Your task to perform on an android device: open app "Indeed Job Search" Image 0: 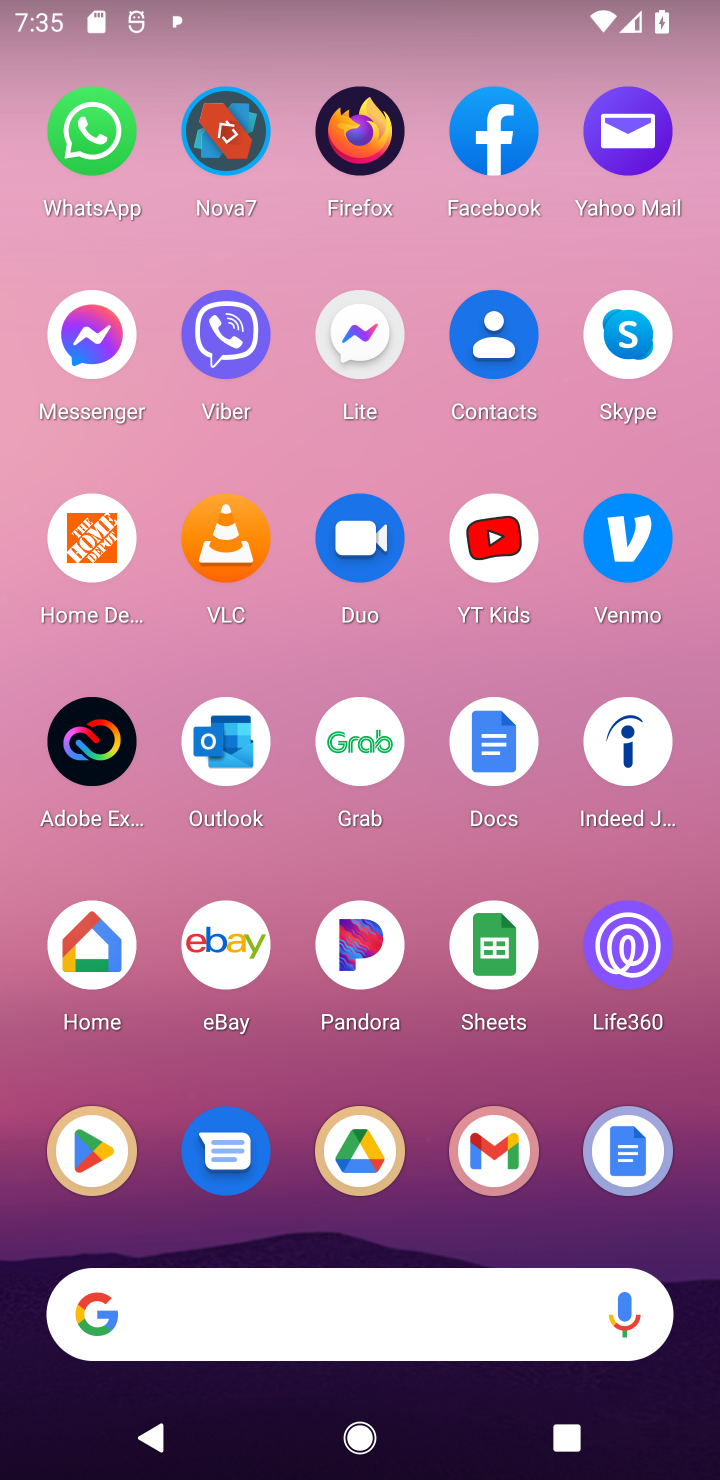
Step 0: click (92, 1155)
Your task to perform on an android device: open app "Indeed Job Search" Image 1: 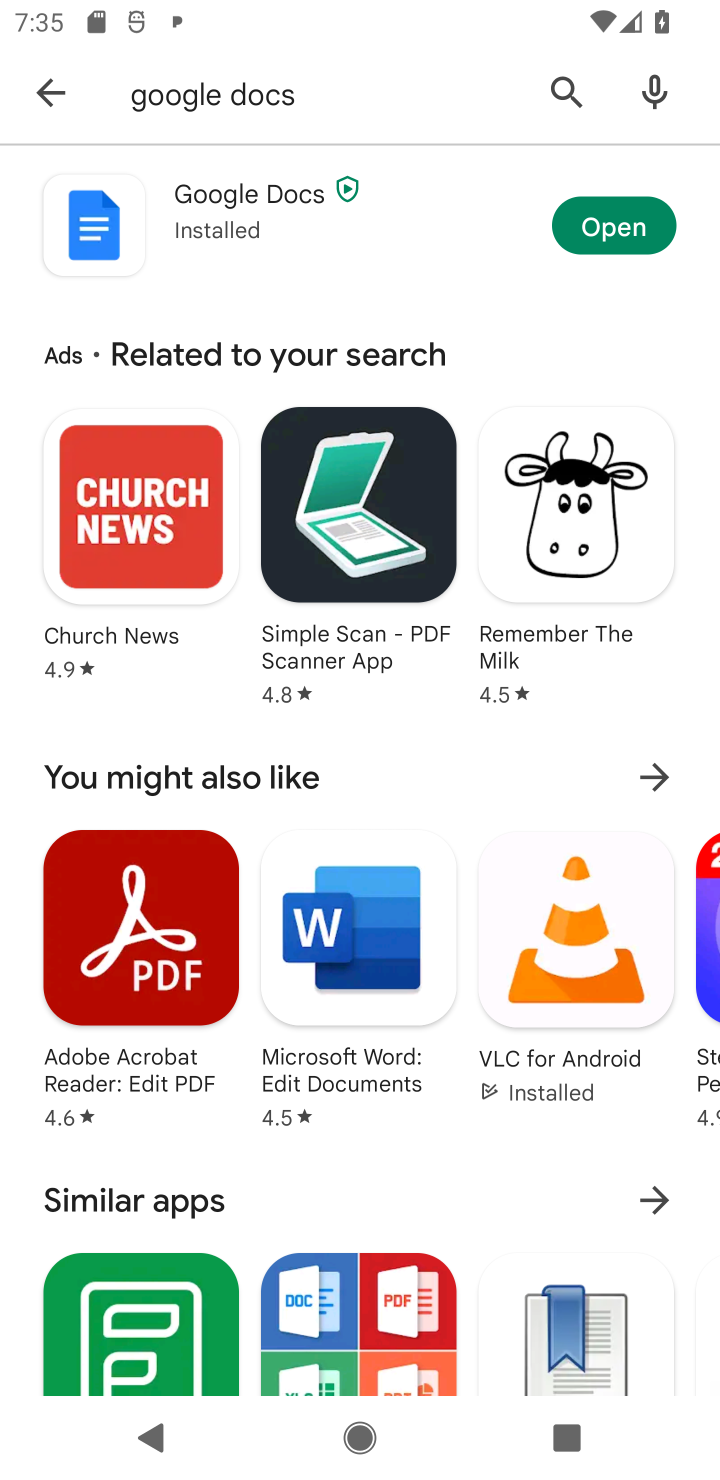
Step 1: click (565, 102)
Your task to perform on an android device: open app "Indeed Job Search" Image 2: 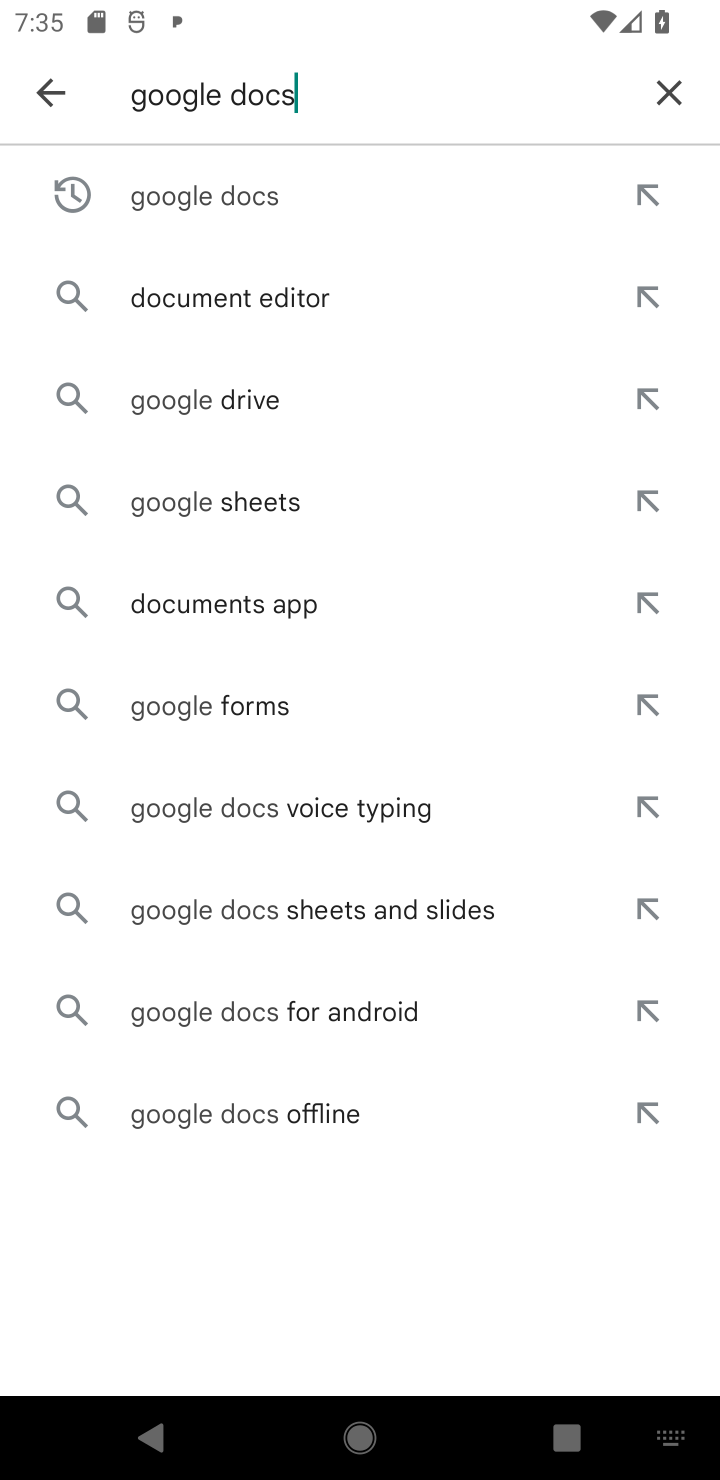
Step 2: click (661, 98)
Your task to perform on an android device: open app "Indeed Job Search" Image 3: 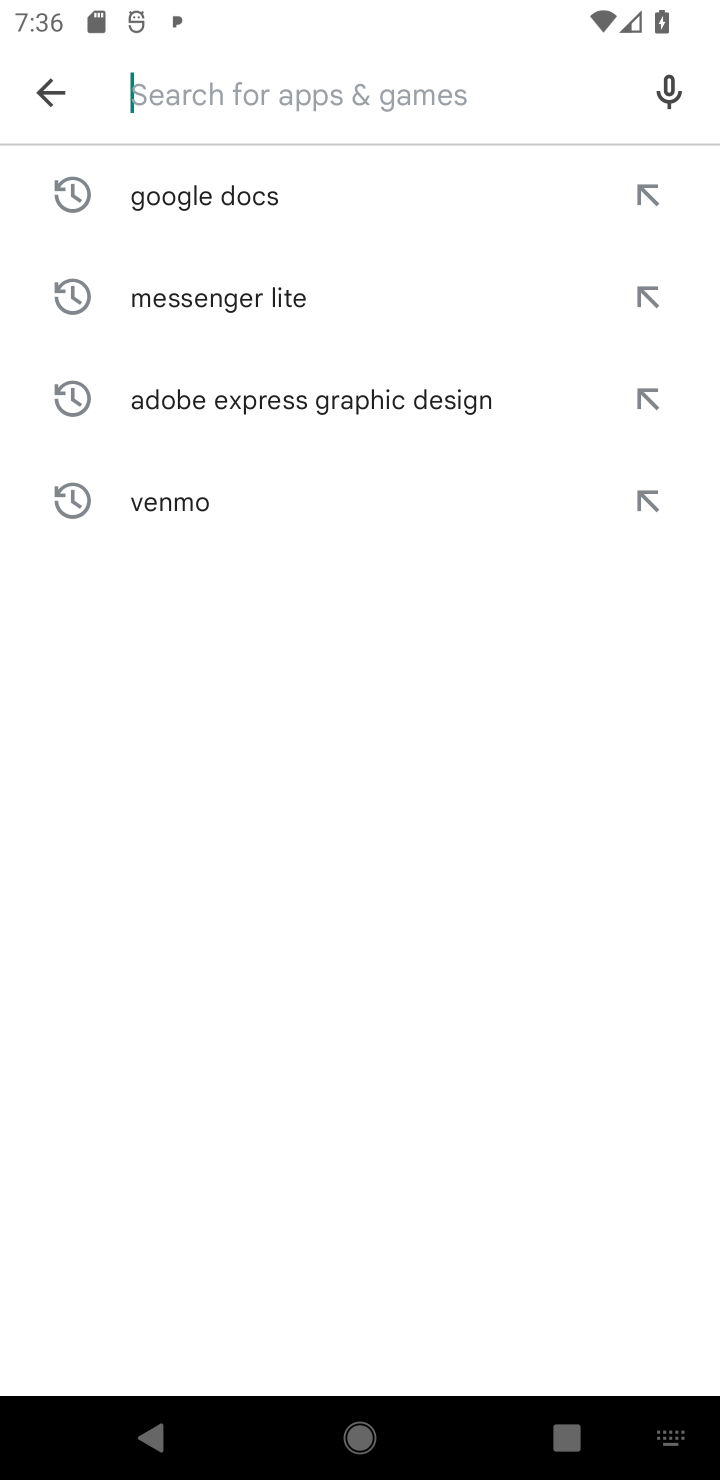
Step 3: type "Indeed Job Search"
Your task to perform on an android device: open app "Indeed Job Search" Image 4: 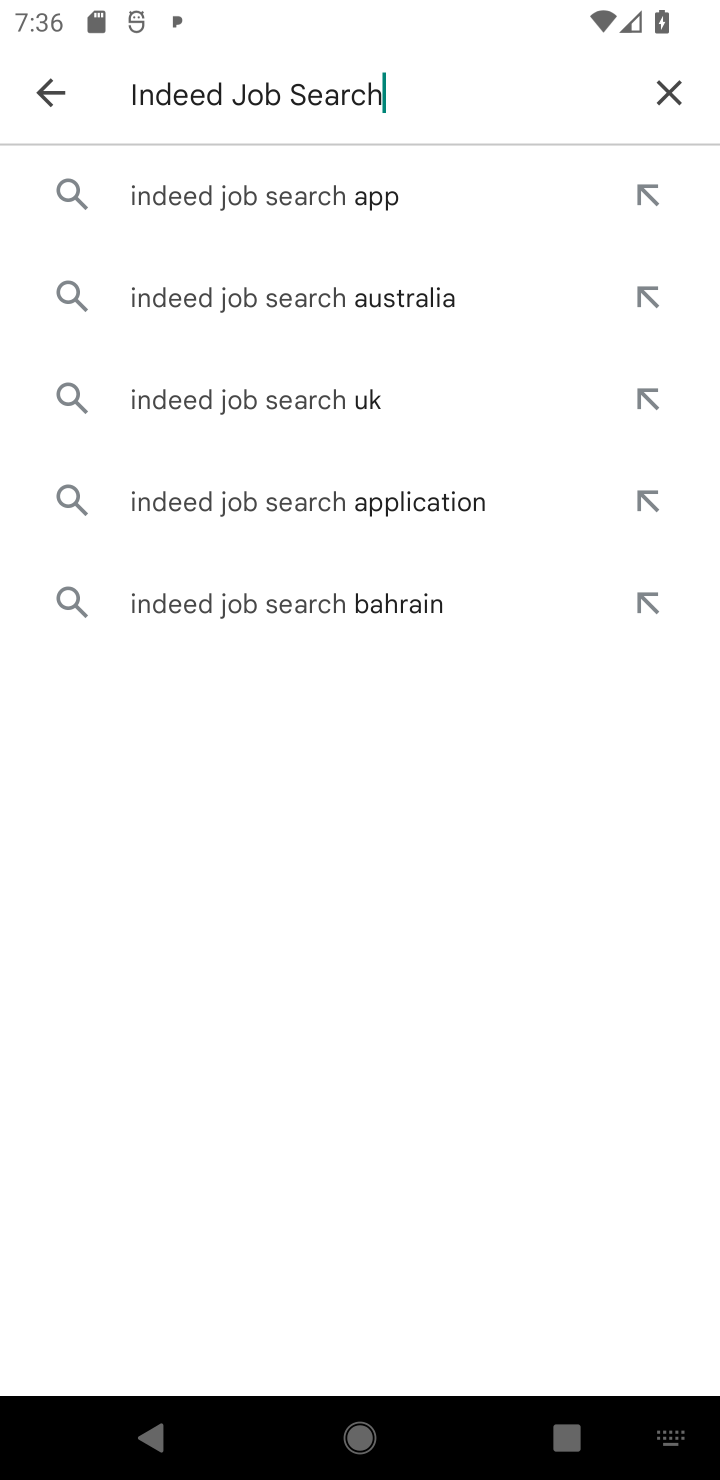
Step 4: click (212, 196)
Your task to perform on an android device: open app "Indeed Job Search" Image 5: 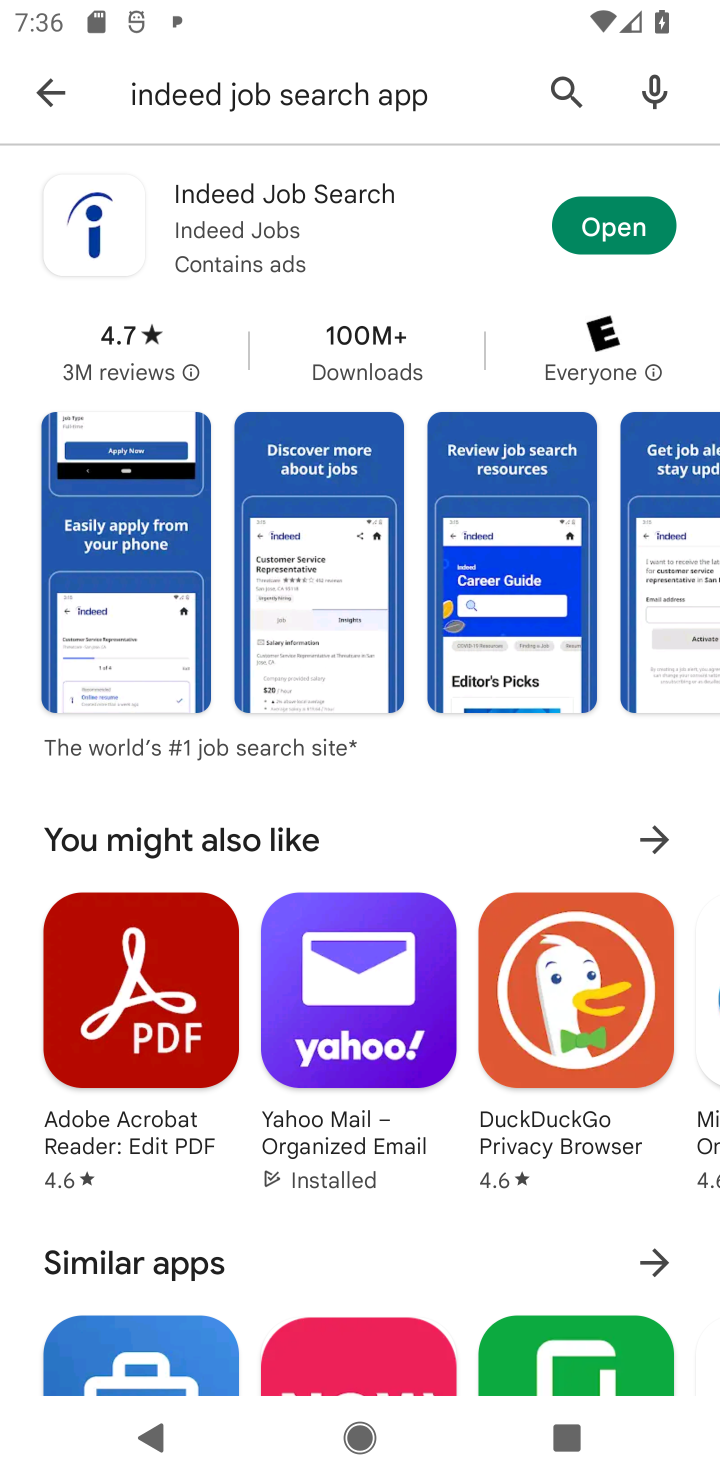
Step 5: click (608, 235)
Your task to perform on an android device: open app "Indeed Job Search" Image 6: 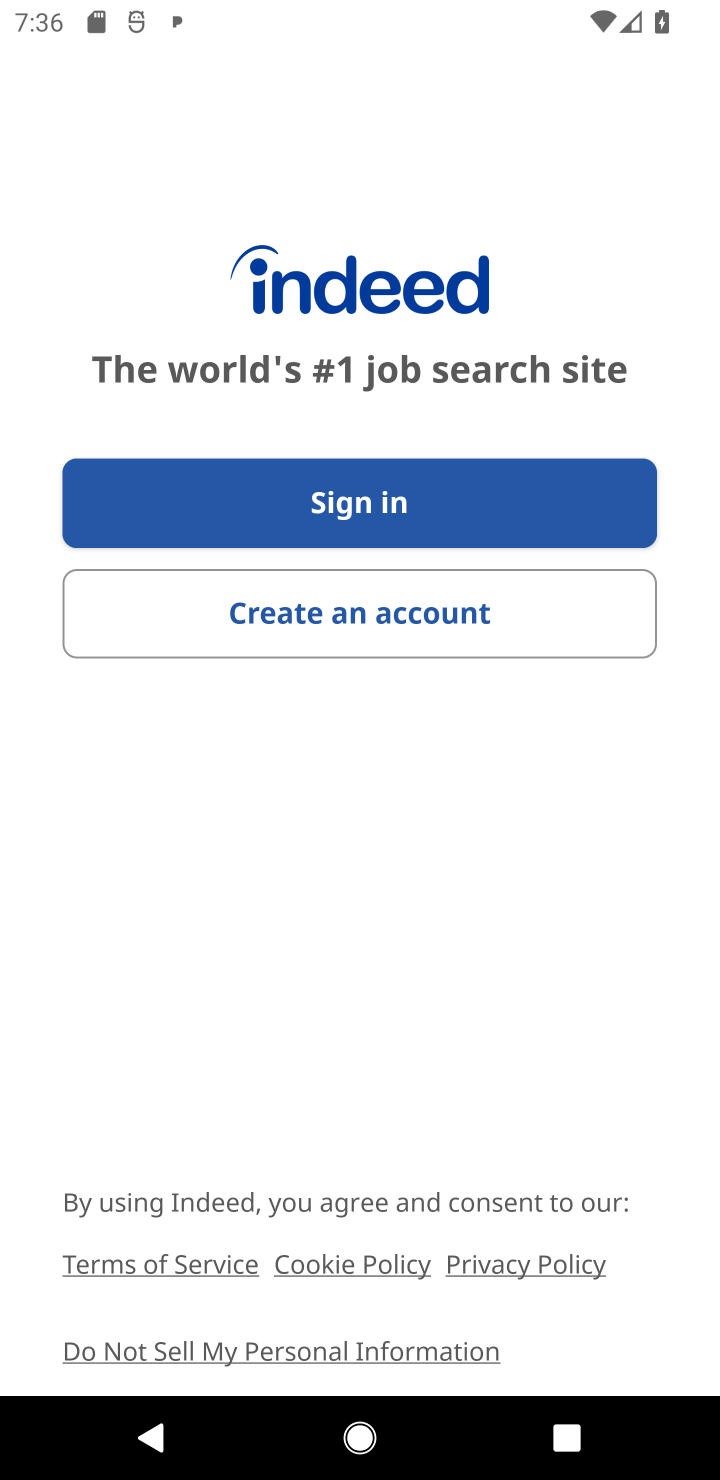
Step 6: task complete